Your task to perform on an android device: Clear all items from cart on target.com. Search for acer nitro on target.com, select the first entry, add it to the cart, then select checkout. Image 0: 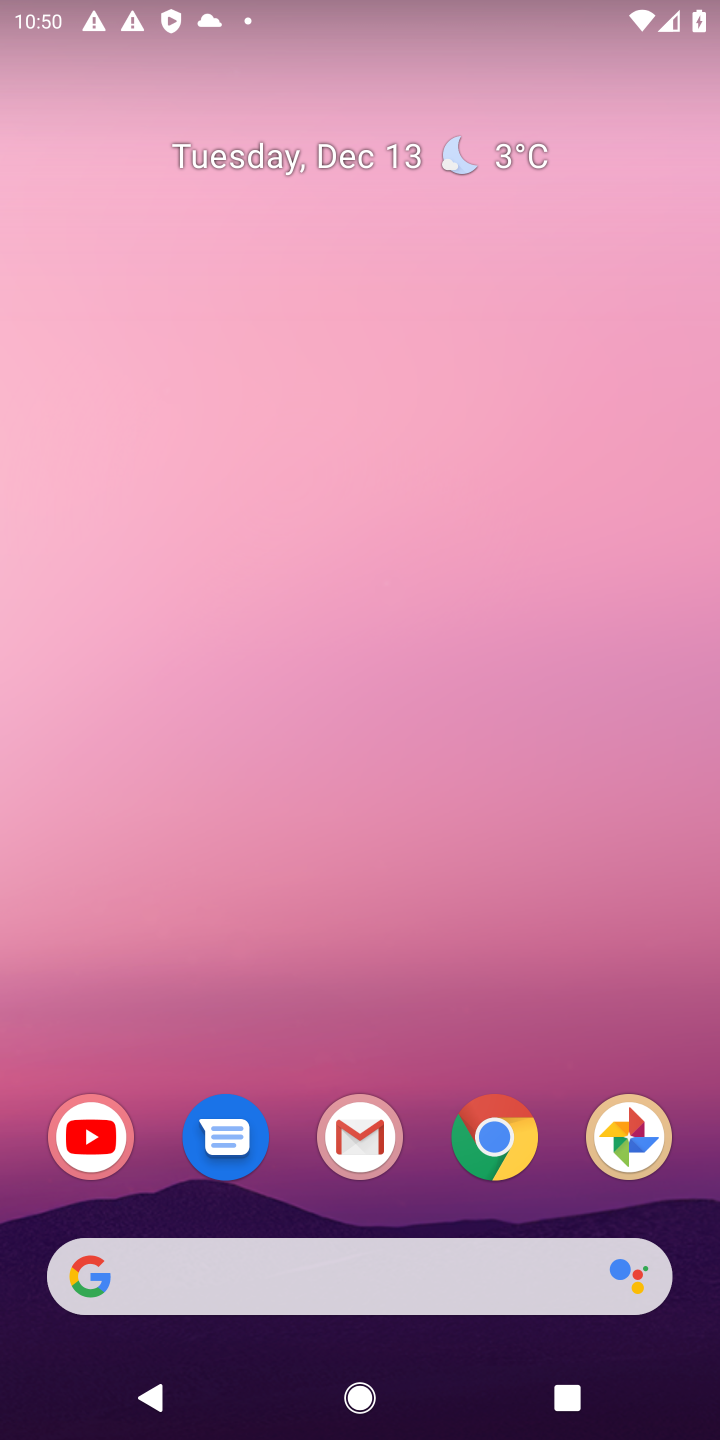
Step 0: click (510, 1150)
Your task to perform on an android device: Clear all items from cart on target.com. Search for acer nitro on target.com, select the first entry, add it to the cart, then select checkout. Image 1: 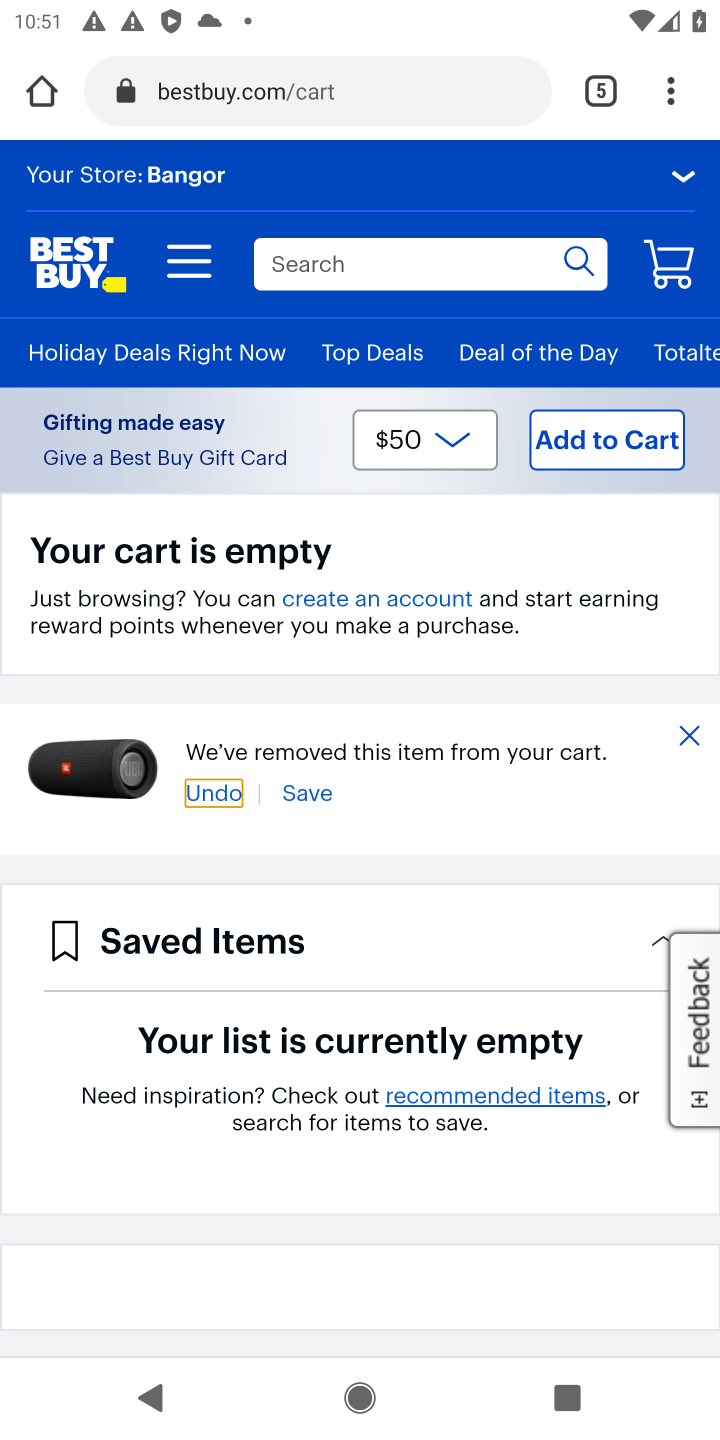
Step 1: click (608, 85)
Your task to perform on an android device: Clear all items from cart on target.com. Search for acer nitro on target.com, select the first entry, add it to the cart, then select checkout. Image 2: 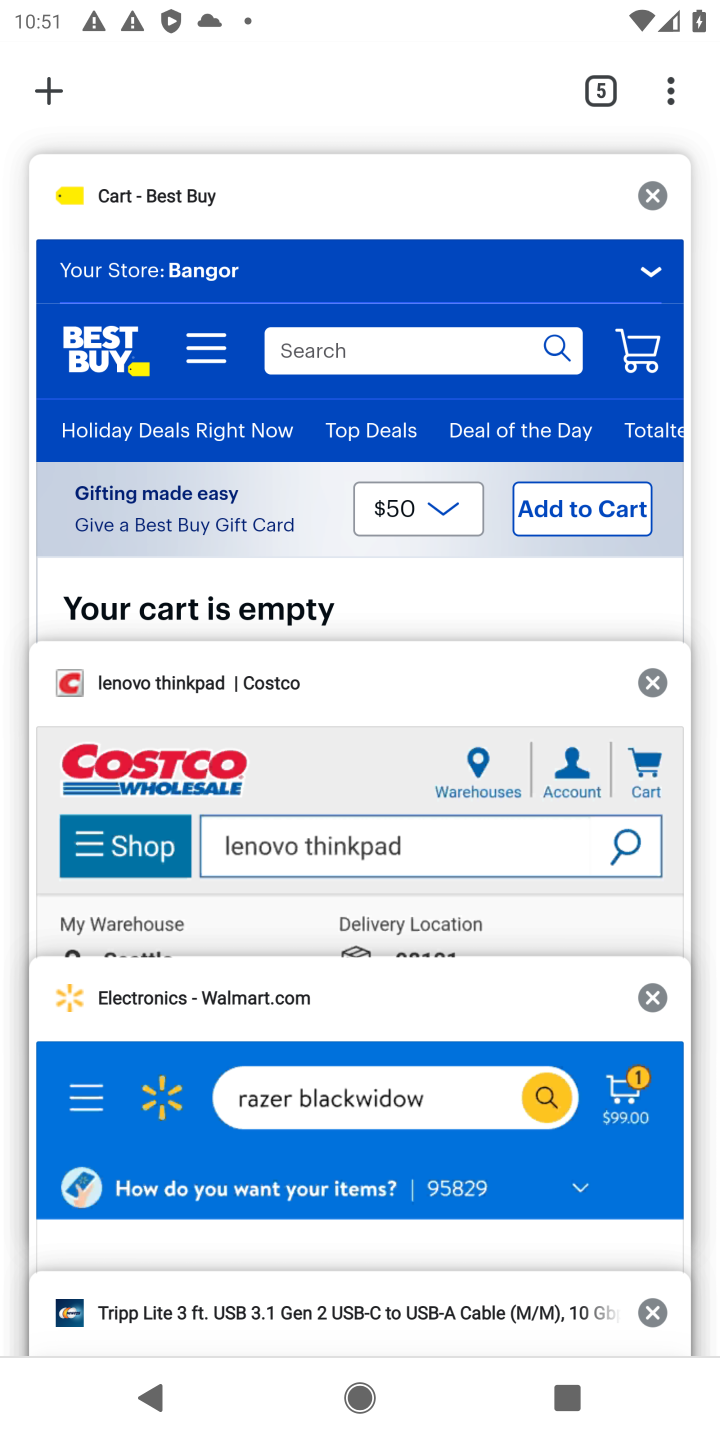
Step 2: drag from (212, 1298) to (298, 821)
Your task to perform on an android device: Clear all items from cart on target.com. Search for acer nitro on target.com, select the first entry, add it to the cart, then select checkout. Image 3: 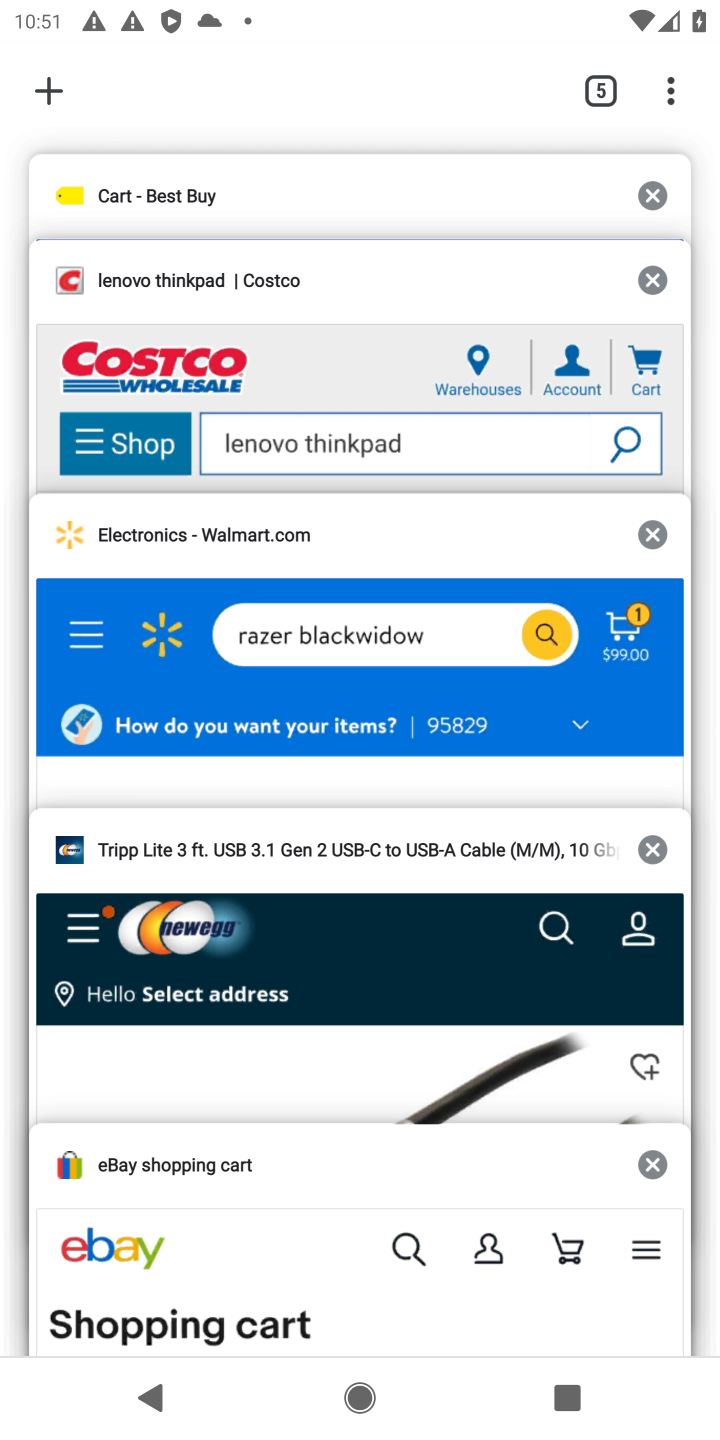
Step 3: click (53, 89)
Your task to perform on an android device: Clear all items from cart on target.com. Search for acer nitro on target.com, select the first entry, add it to the cart, then select checkout. Image 4: 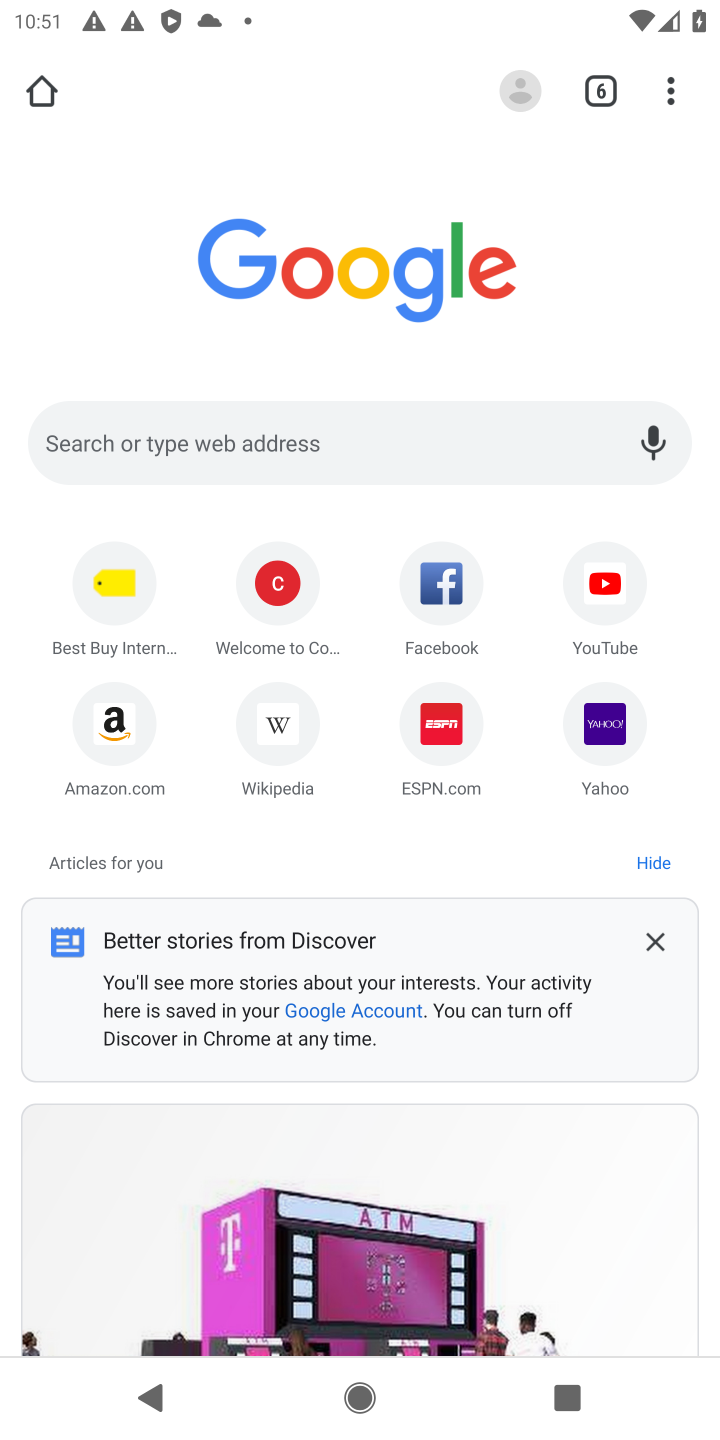
Step 4: click (367, 435)
Your task to perform on an android device: Clear all items from cart on target.com. Search for acer nitro on target.com, select the first entry, add it to the cart, then select checkout. Image 5: 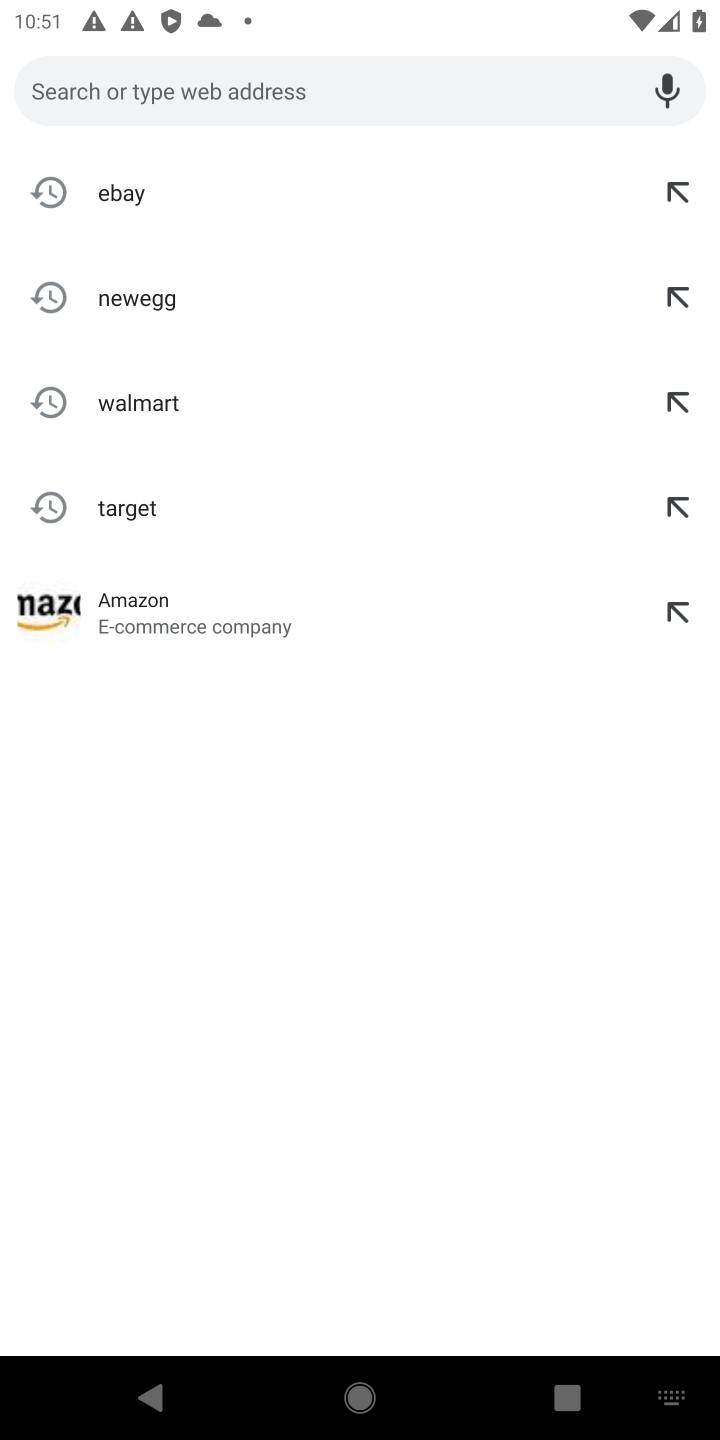
Step 5: click (133, 511)
Your task to perform on an android device: Clear all items from cart on target.com. Search for acer nitro on target.com, select the first entry, add it to the cart, then select checkout. Image 6: 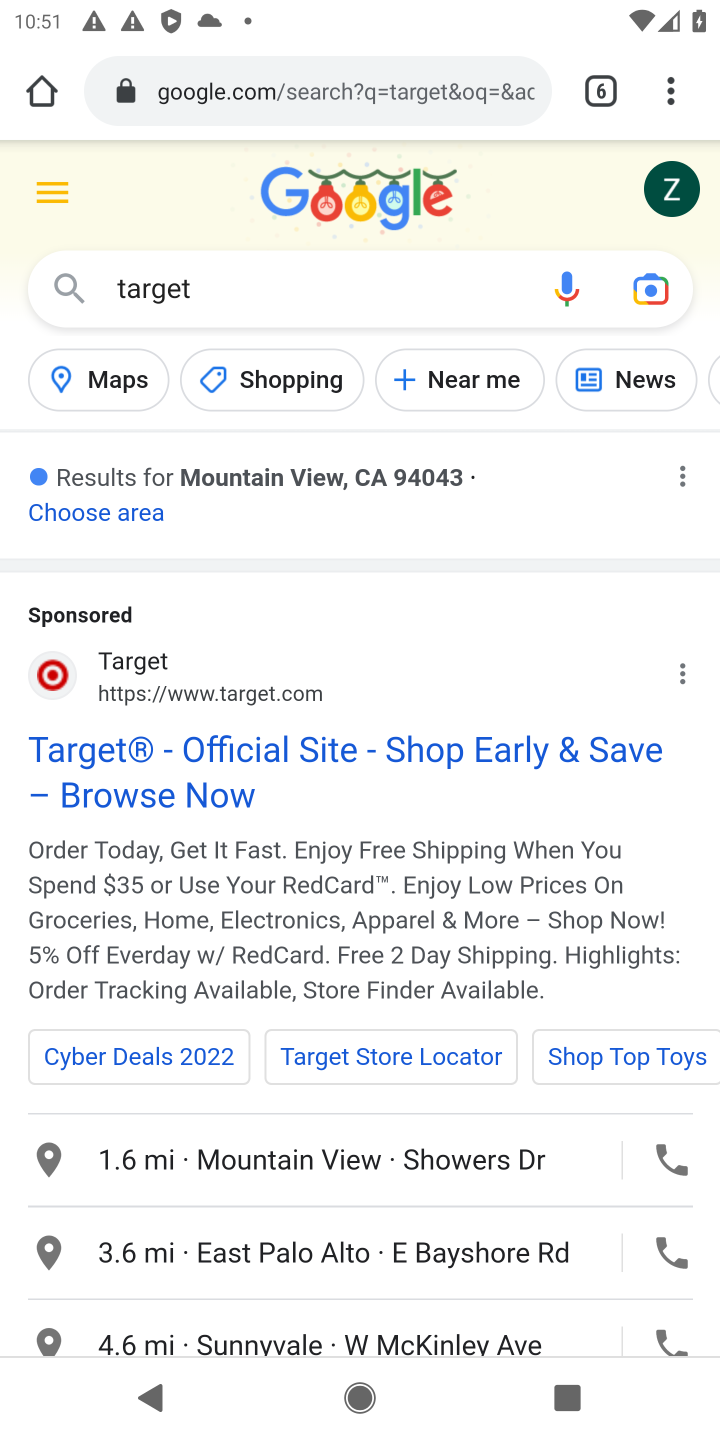
Step 6: click (122, 752)
Your task to perform on an android device: Clear all items from cart on target.com. Search for acer nitro on target.com, select the first entry, add it to the cart, then select checkout. Image 7: 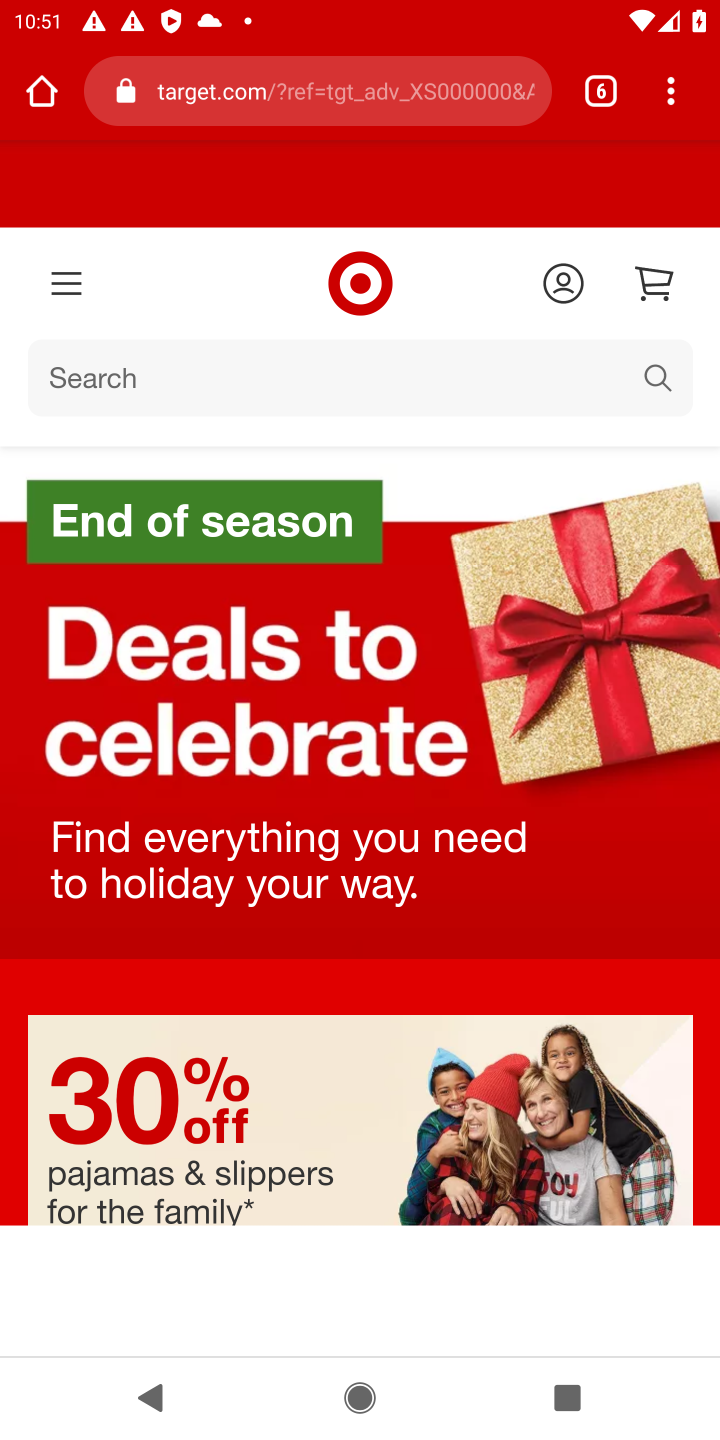
Step 7: click (94, 367)
Your task to perform on an android device: Clear all items from cart on target.com. Search for acer nitro on target.com, select the first entry, add it to the cart, then select checkout. Image 8: 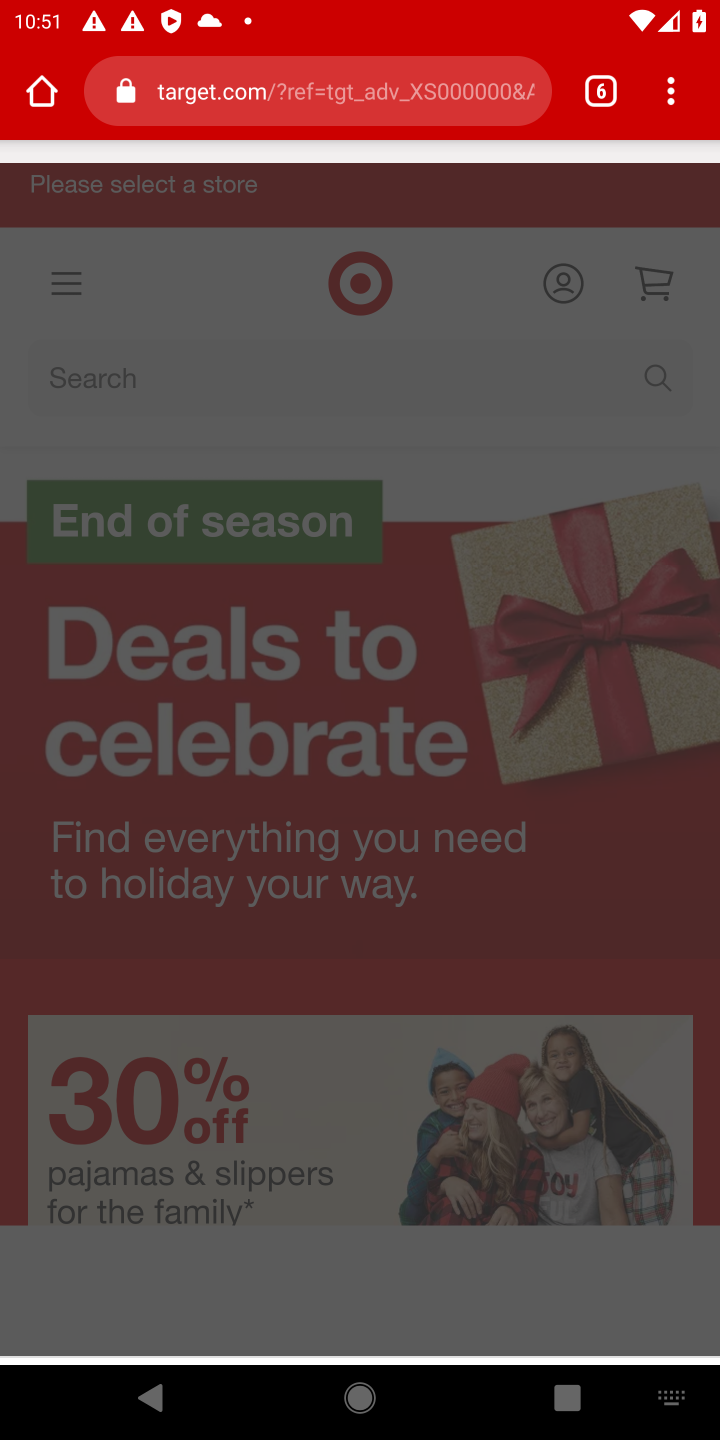
Step 8: type "acer nitro"
Your task to perform on an android device: Clear all items from cart on target.com. Search for acer nitro on target.com, select the first entry, add it to the cart, then select checkout. Image 9: 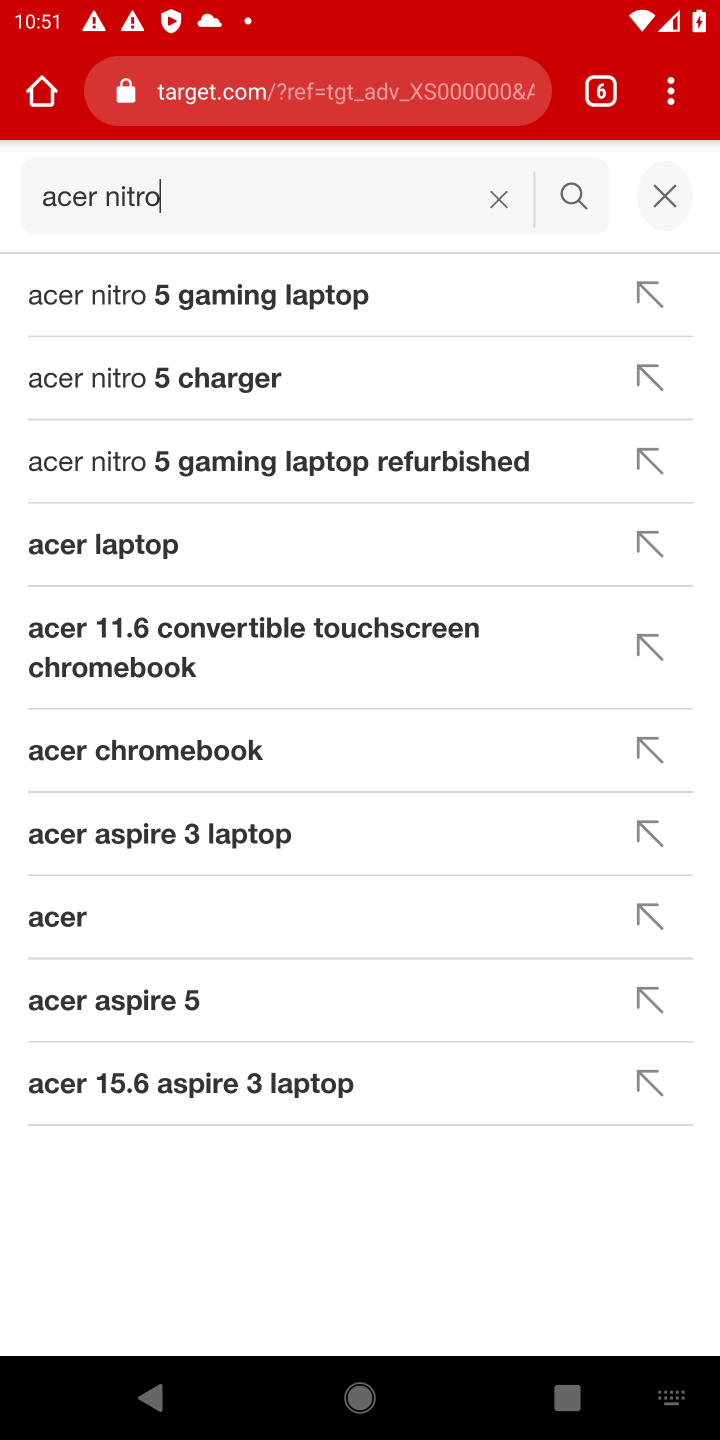
Step 9: click (570, 199)
Your task to perform on an android device: Clear all items from cart on target.com. Search for acer nitro on target.com, select the first entry, add it to the cart, then select checkout. Image 10: 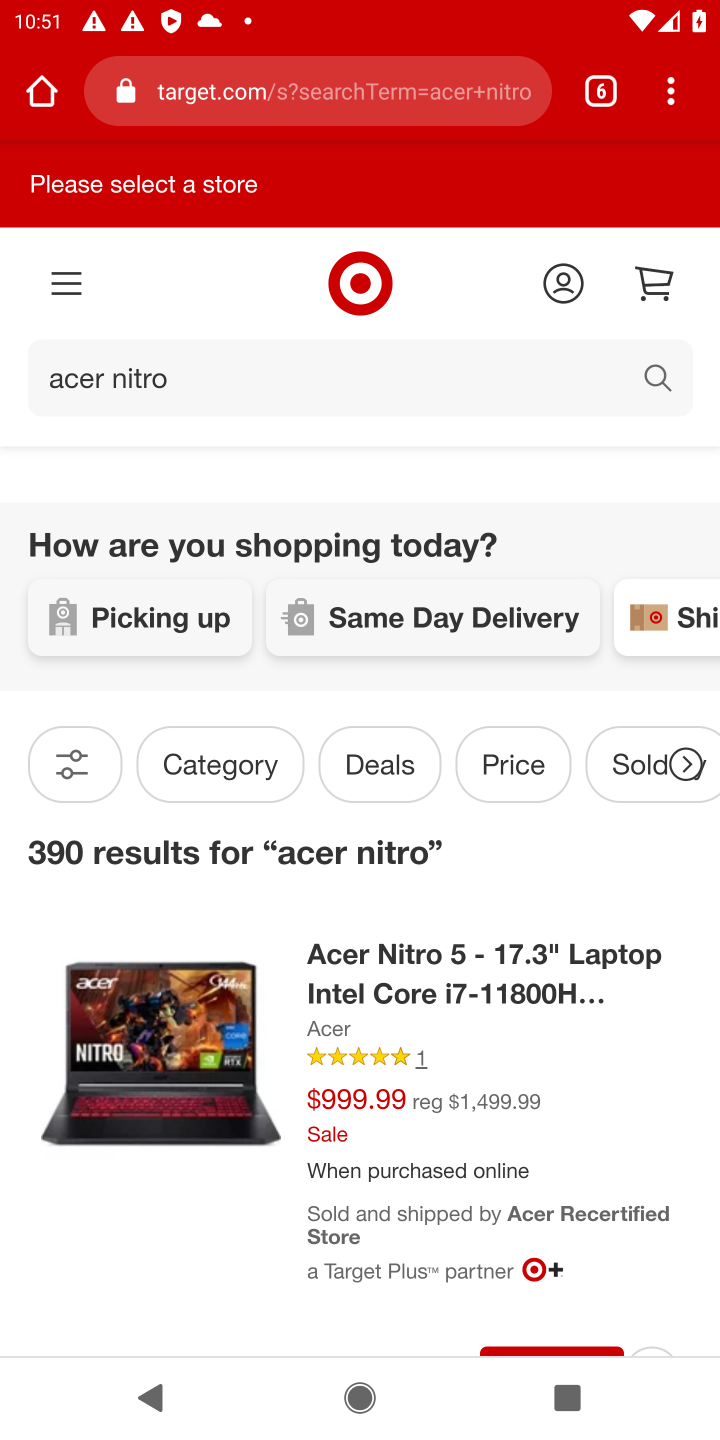
Step 10: drag from (599, 1110) to (559, 479)
Your task to perform on an android device: Clear all items from cart on target.com. Search for acer nitro on target.com, select the first entry, add it to the cart, then select checkout. Image 11: 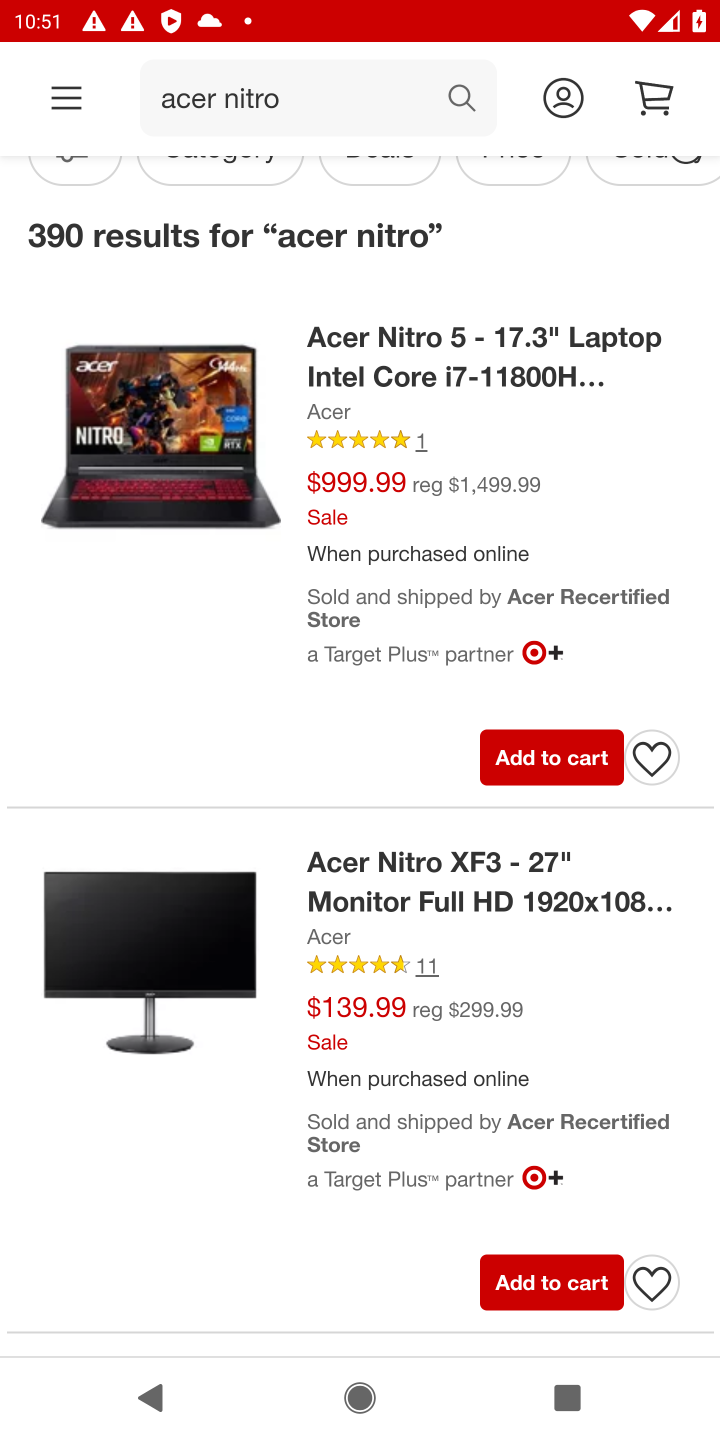
Step 11: click (554, 761)
Your task to perform on an android device: Clear all items from cart on target.com. Search for acer nitro on target.com, select the first entry, add it to the cart, then select checkout. Image 12: 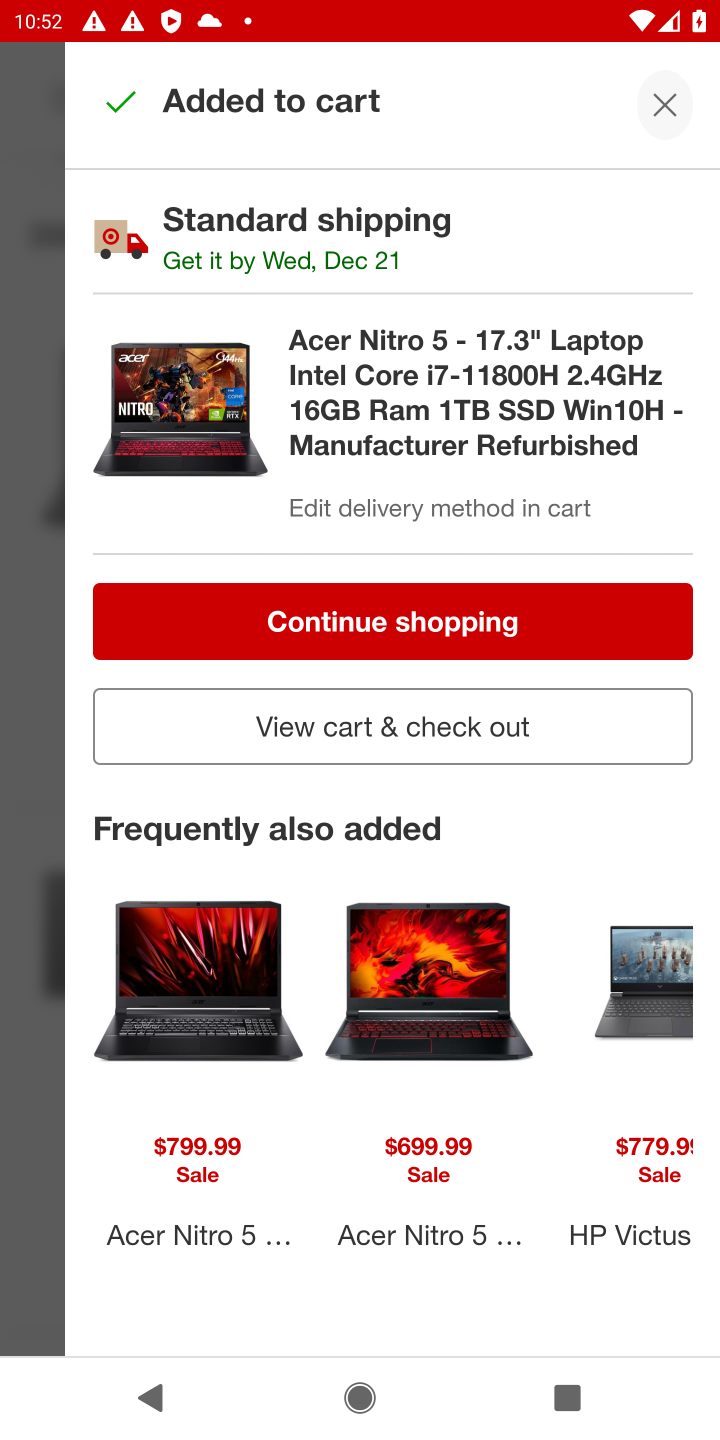
Step 12: task complete